Your task to perform on an android device: turn off location Image 0: 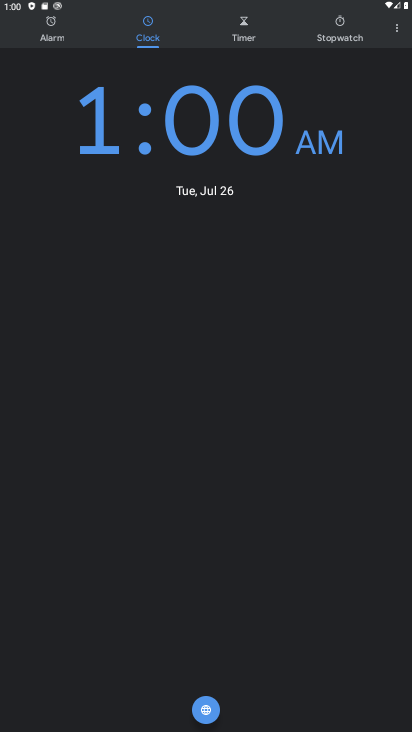
Step 0: press home button
Your task to perform on an android device: turn off location Image 1: 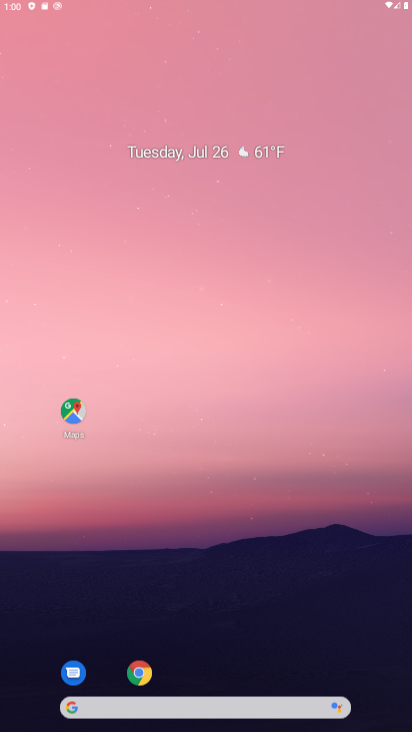
Step 1: drag from (165, 543) to (139, 21)
Your task to perform on an android device: turn off location Image 2: 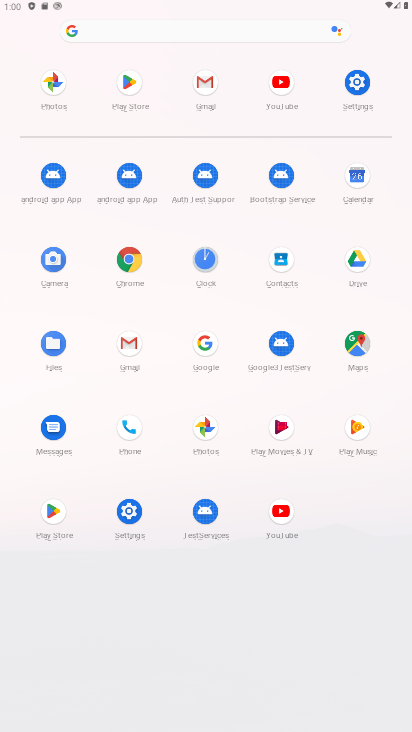
Step 2: click (131, 508)
Your task to perform on an android device: turn off location Image 3: 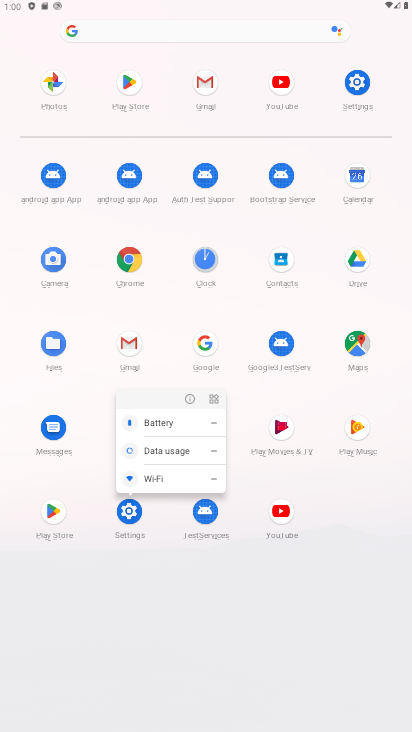
Step 3: click (191, 396)
Your task to perform on an android device: turn off location Image 4: 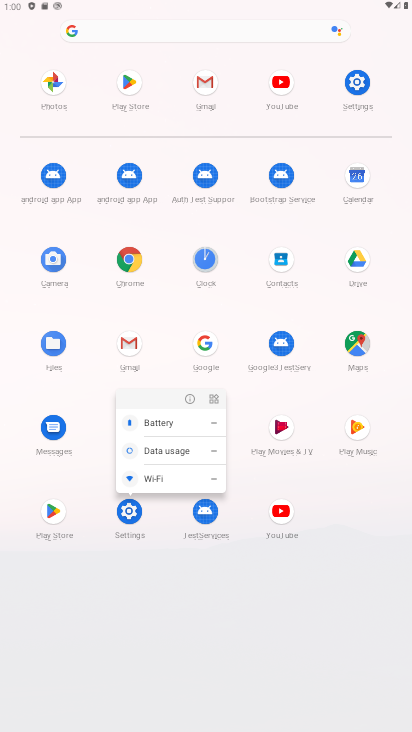
Step 4: click (191, 396)
Your task to perform on an android device: turn off location Image 5: 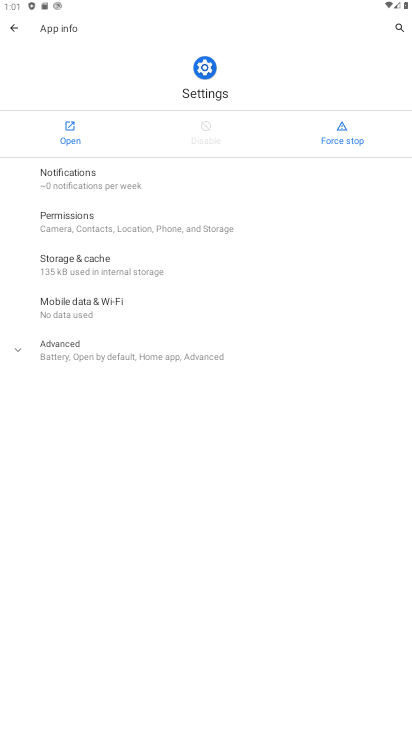
Step 5: click (68, 122)
Your task to perform on an android device: turn off location Image 6: 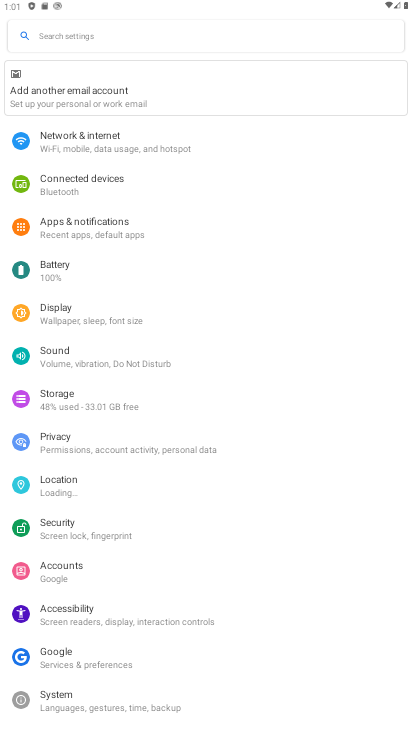
Step 6: click (67, 481)
Your task to perform on an android device: turn off location Image 7: 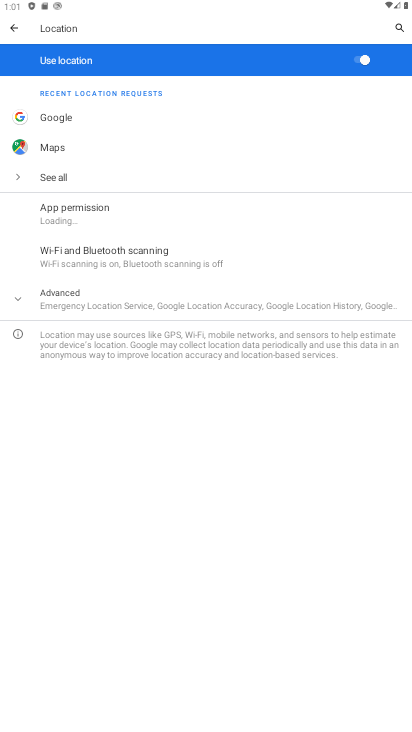
Step 7: drag from (156, 570) to (161, 355)
Your task to perform on an android device: turn off location Image 8: 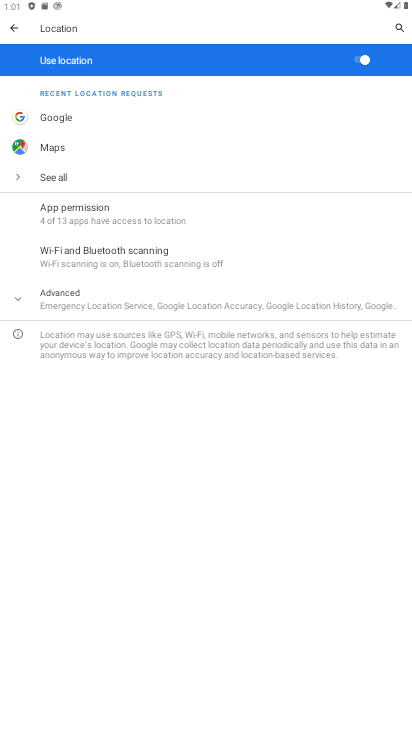
Step 8: click (345, 62)
Your task to perform on an android device: turn off location Image 9: 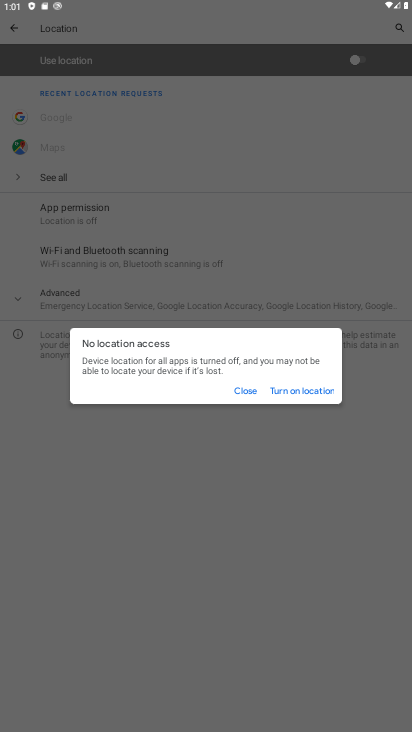
Step 9: task complete